Your task to perform on an android device: turn on javascript in the chrome app Image 0: 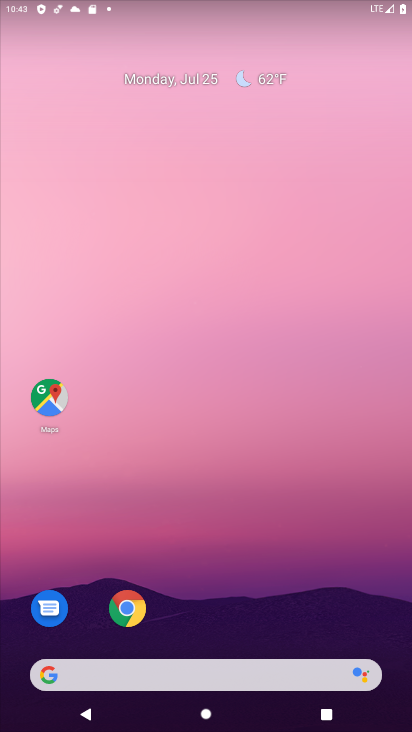
Step 0: drag from (213, 570) to (242, 186)
Your task to perform on an android device: turn on javascript in the chrome app Image 1: 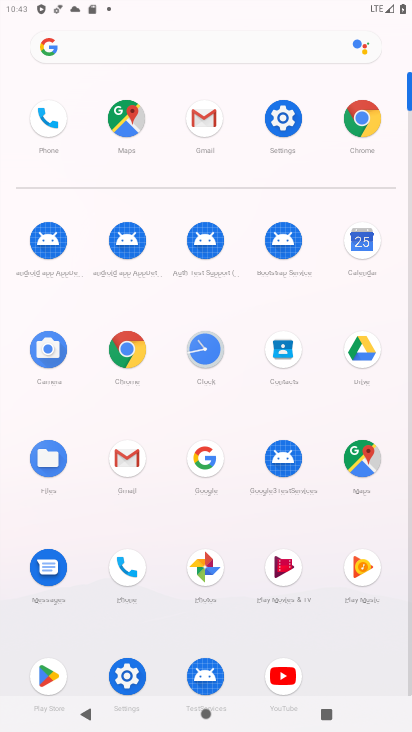
Step 1: click (134, 365)
Your task to perform on an android device: turn on javascript in the chrome app Image 2: 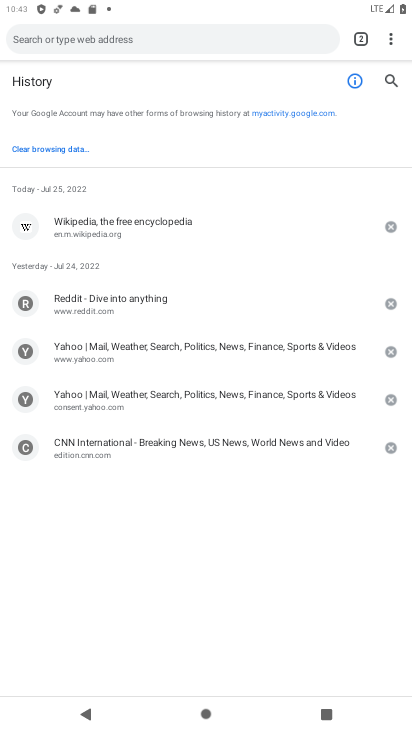
Step 2: click (386, 36)
Your task to perform on an android device: turn on javascript in the chrome app Image 3: 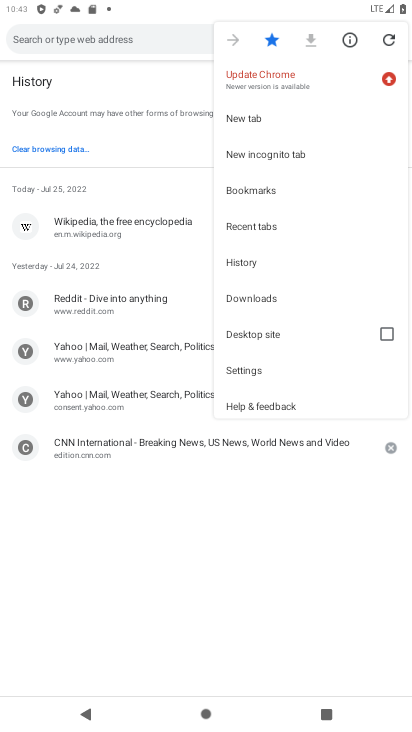
Step 3: click (253, 374)
Your task to perform on an android device: turn on javascript in the chrome app Image 4: 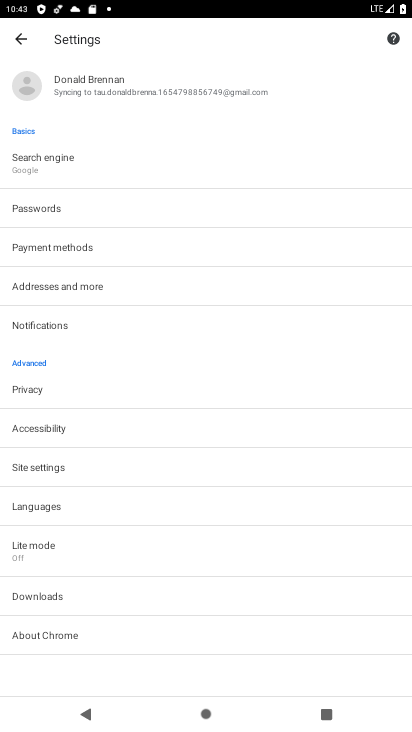
Step 4: click (74, 470)
Your task to perform on an android device: turn on javascript in the chrome app Image 5: 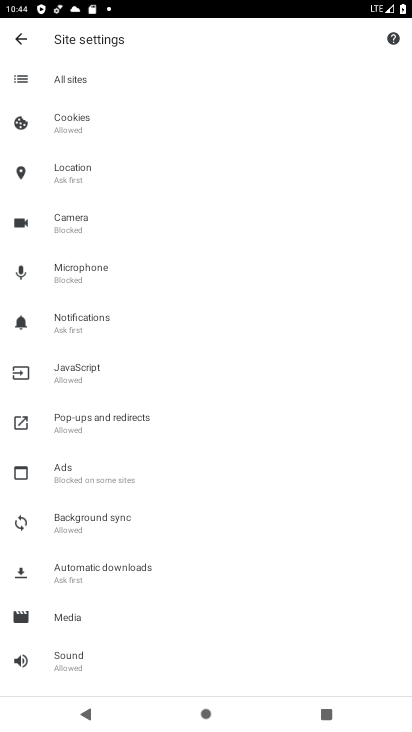
Step 5: click (93, 378)
Your task to perform on an android device: turn on javascript in the chrome app Image 6: 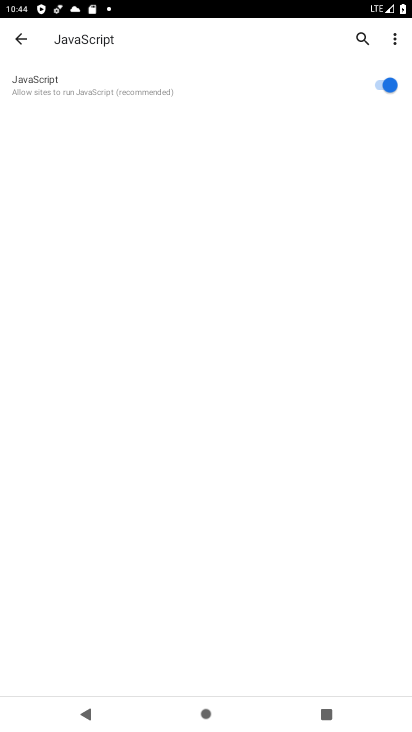
Step 6: task complete